Your task to perform on an android device: turn off picture-in-picture Image 0: 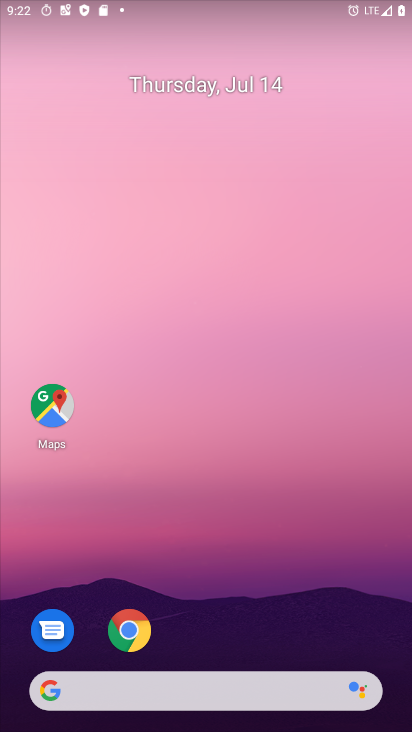
Step 0: drag from (194, 723) to (151, 50)
Your task to perform on an android device: turn off picture-in-picture Image 1: 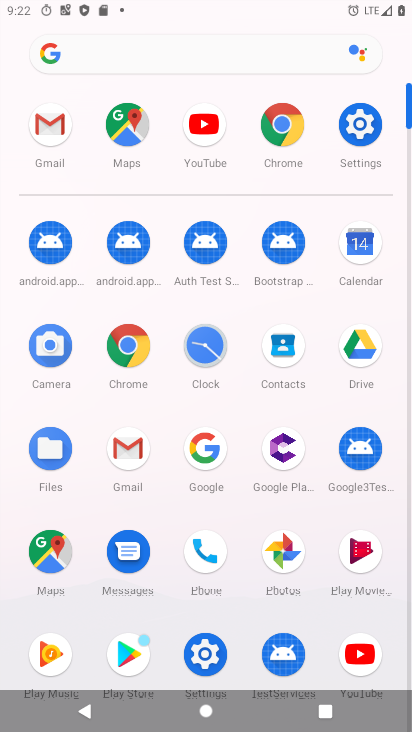
Step 1: click (356, 127)
Your task to perform on an android device: turn off picture-in-picture Image 2: 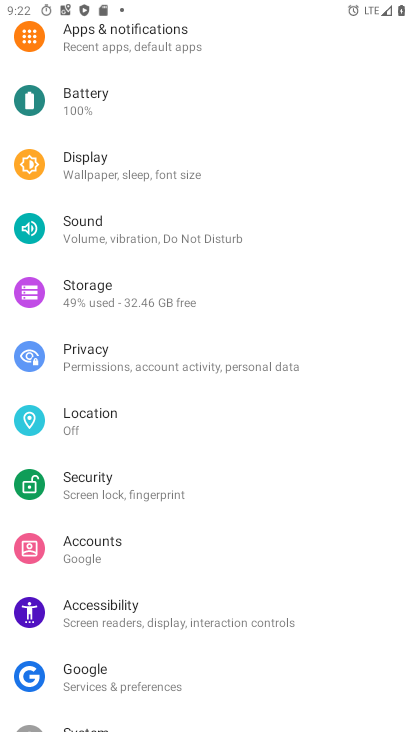
Step 2: click (90, 34)
Your task to perform on an android device: turn off picture-in-picture Image 3: 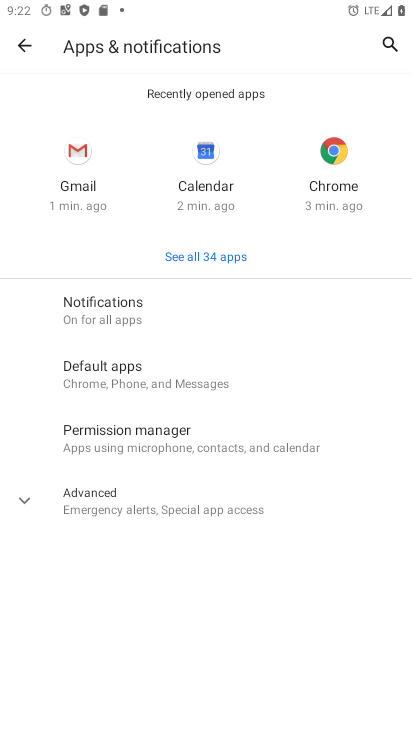
Step 3: click (86, 496)
Your task to perform on an android device: turn off picture-in-picture Image 4: 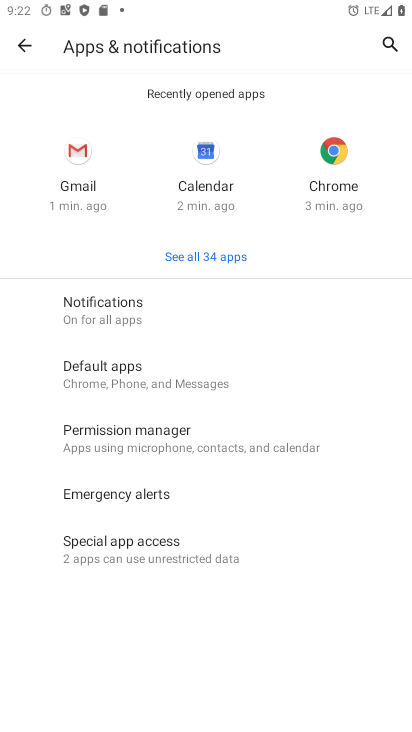
Step 4: click (123, 550)
Your task to perform on an android device: turn off picture-in-picture Image 5: 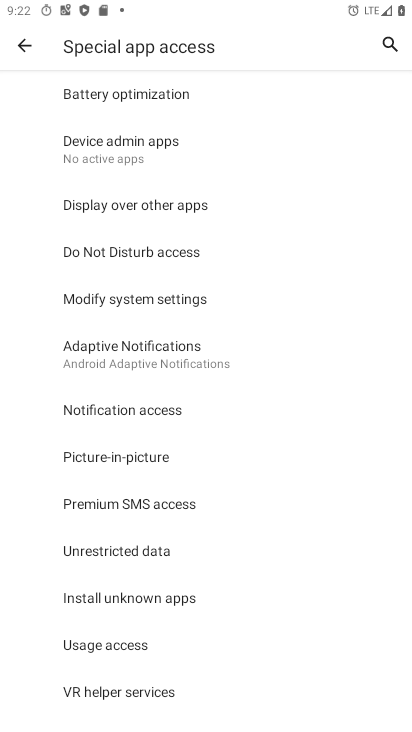
Step 5: click (120, 459)
Your task to perform on an android device: turn off picture-in-picture Image 6: 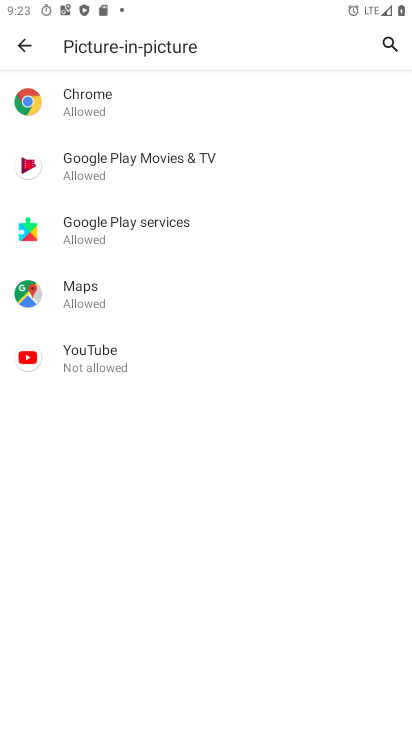
Step 6: click (73, 361)
Your task to perform on an android device: turn off picture-in-picture Image 7: 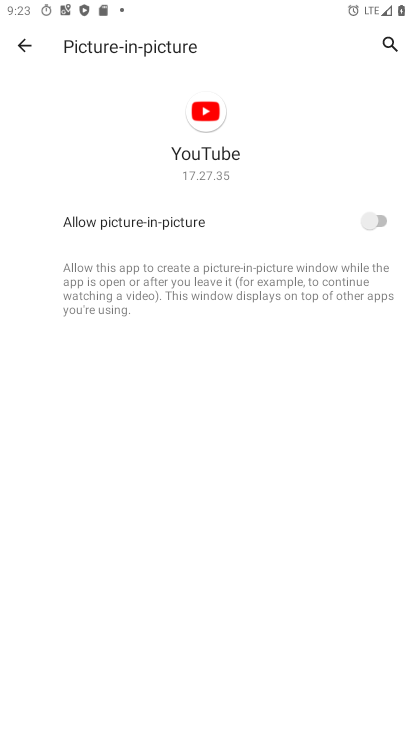
Step 7: task complete